Your task to perform on an android device: open app "Booking.com: Hotels and more" Image 0: 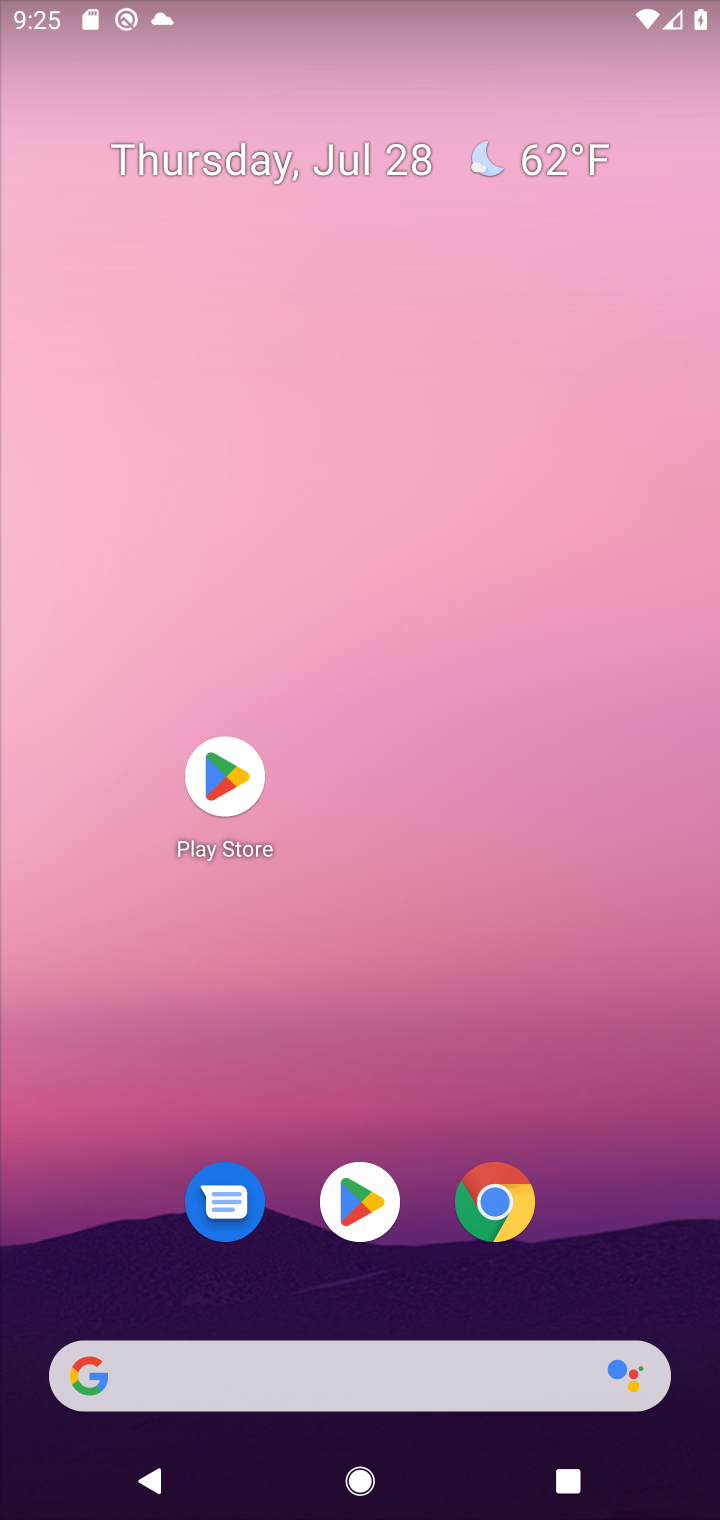
Step 0: click (216, 776)
Your task to perform on an android device: open app "Booking.com: Hotels and more" Image 1: 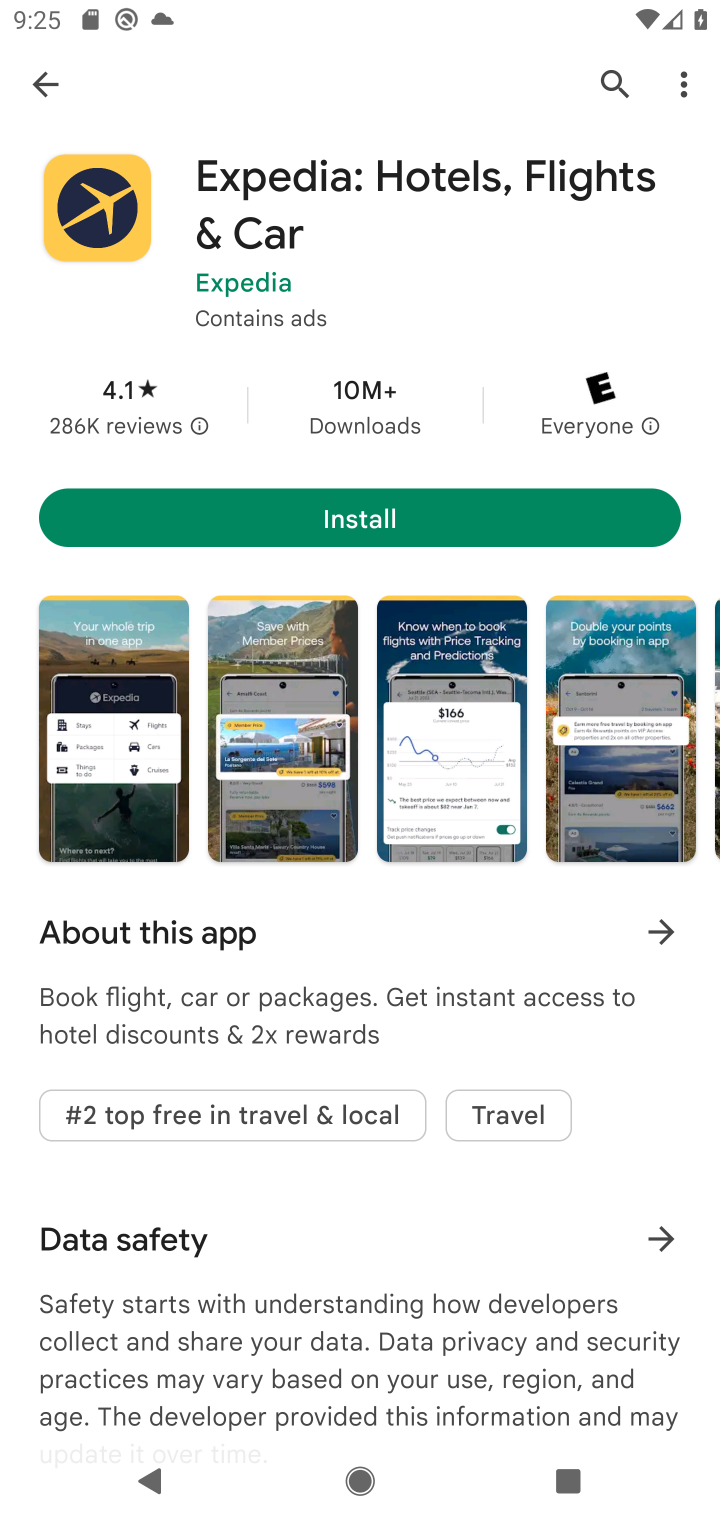
Step 1: click (49, 71)
Your task to perform on an android device: open app "Booking.com: Hotels and more" Image 2: 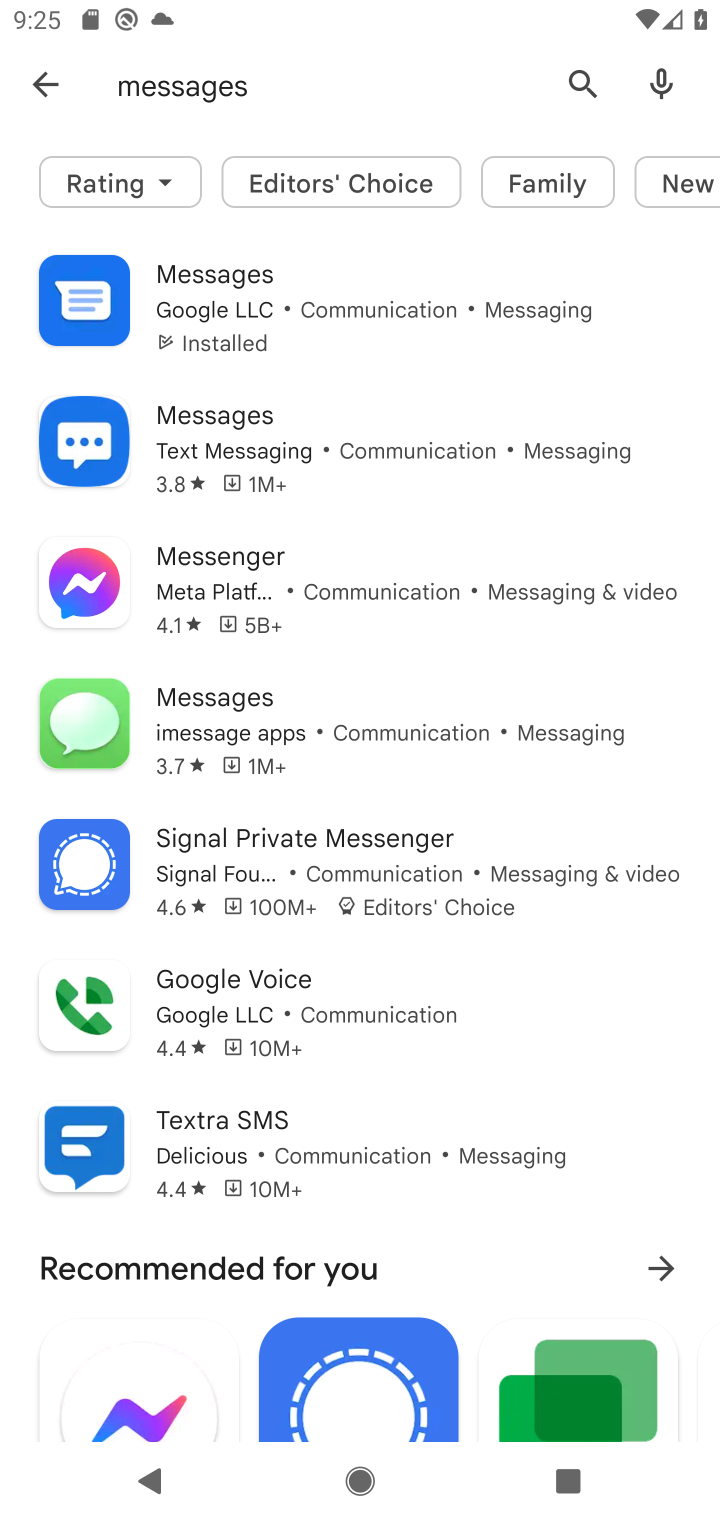
Step 2: click (55, 89)
Your task to perform on an android device: open app "Booking.com: Hotels and more" Image 3: 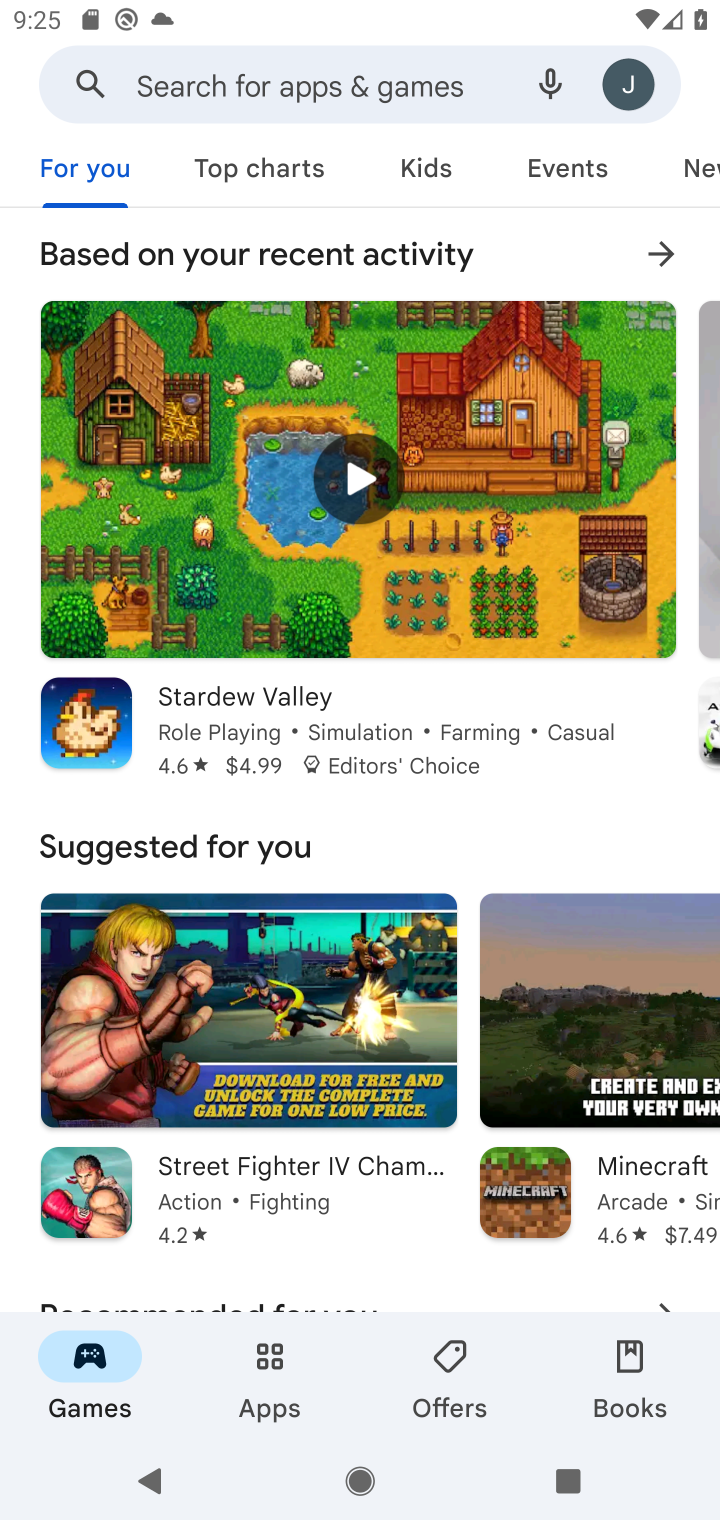
Step 3: click (171, 89)
Your task to perform on an android device: open app "Booking.com: Hotels and more" Image 4: 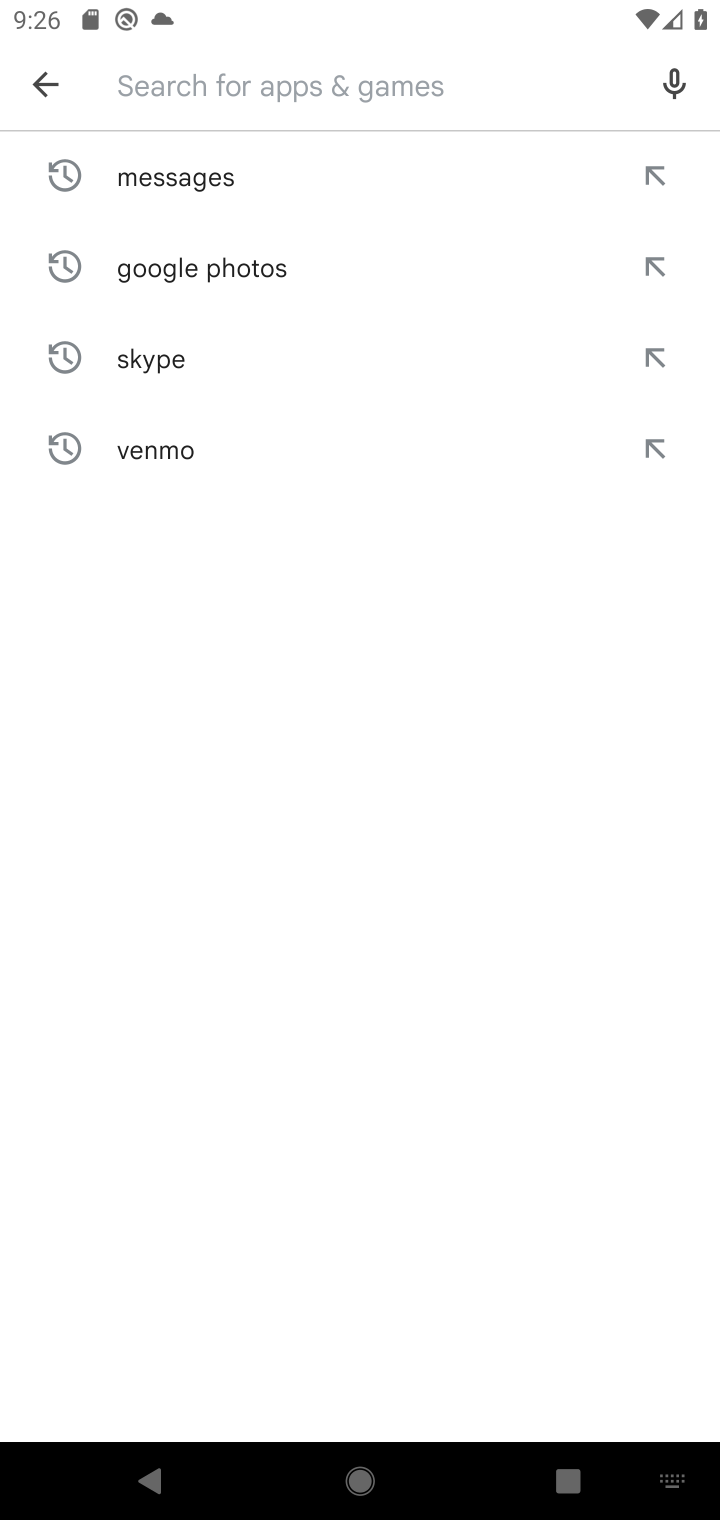
Step 4: type "booking.com"
Your task to perform on an android device: open app "Booking.com: Hotels and more" Image 5: 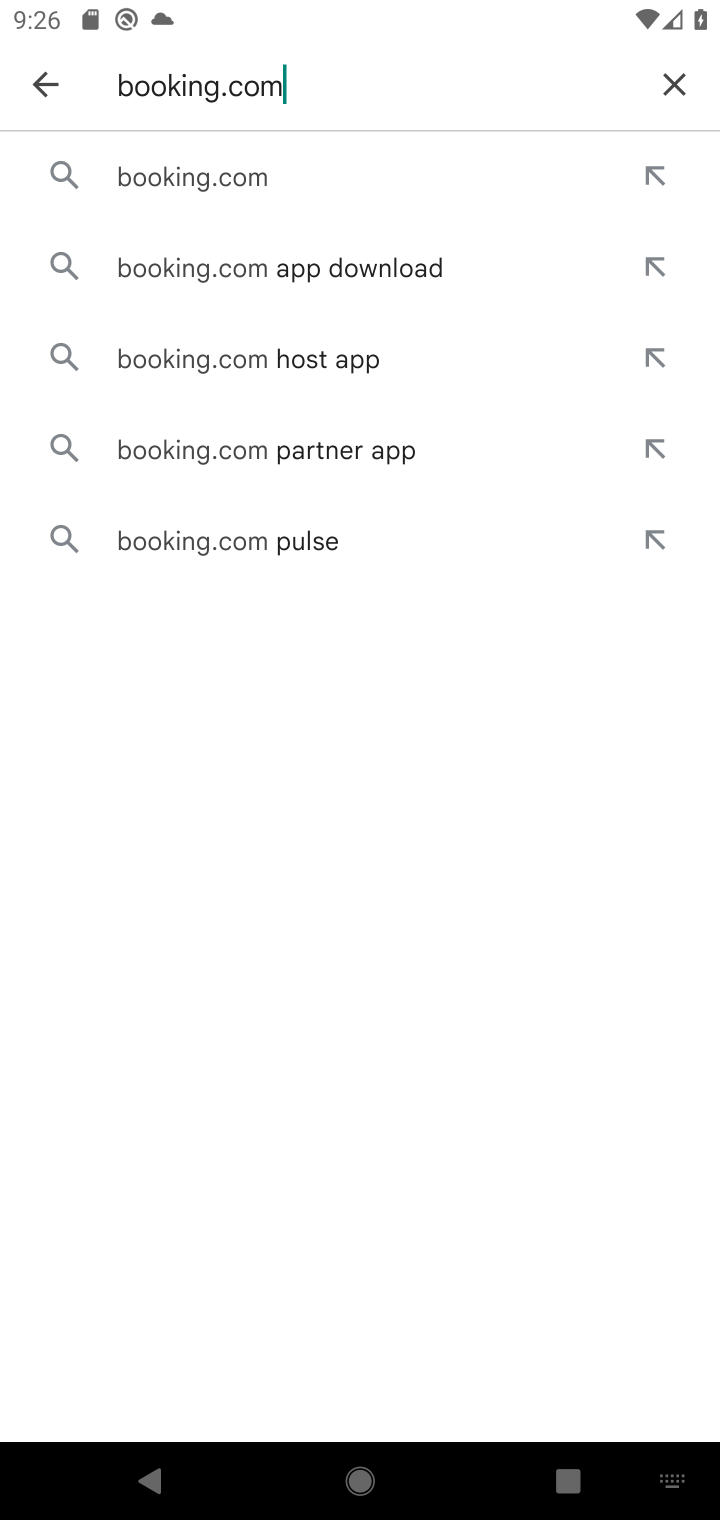
Step 5: click (170, 165)
Your task to perform on an android device: open app "Booking.com: Hotels and more" Image 6: 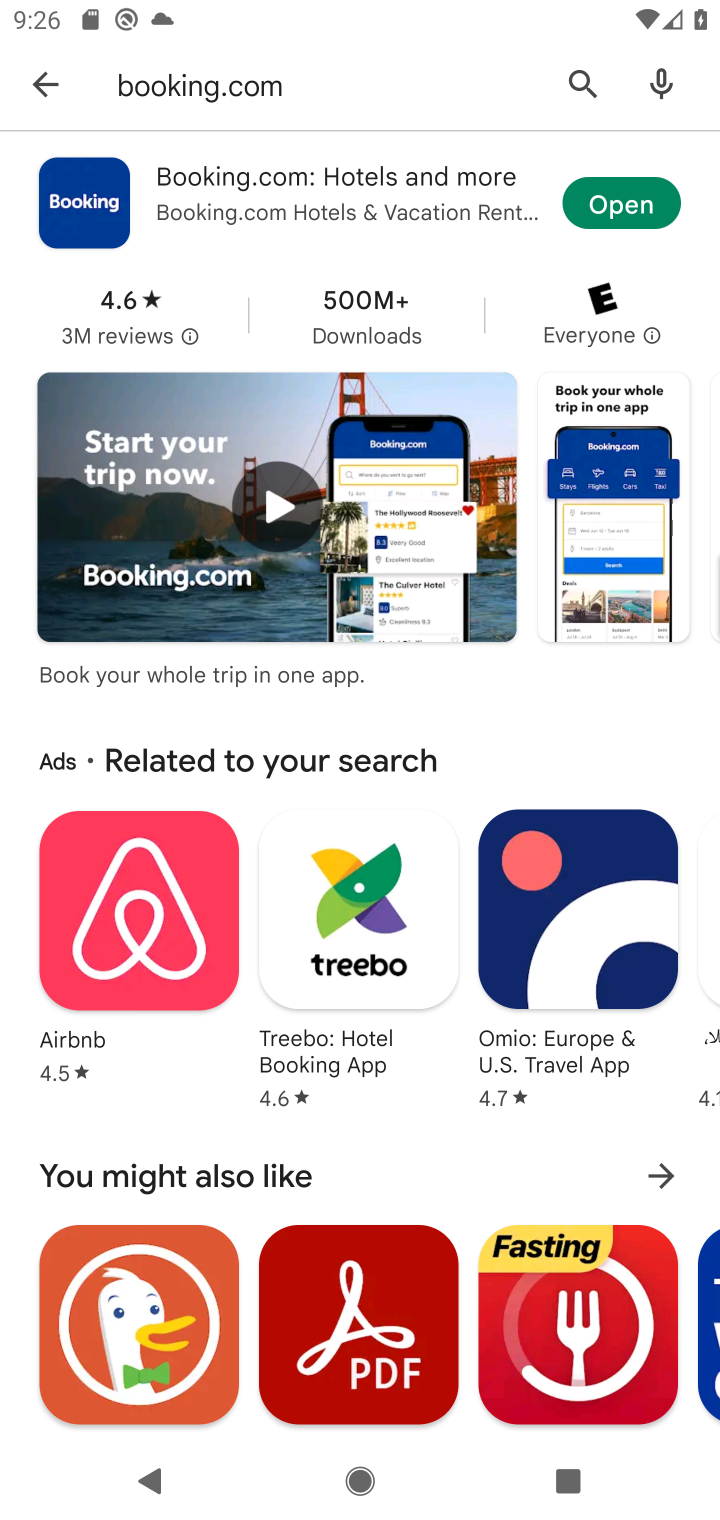
Step 6: click (595, 208)
Your task to perform on an android device: open app "Booking.com: Hotels and more" Image 7: 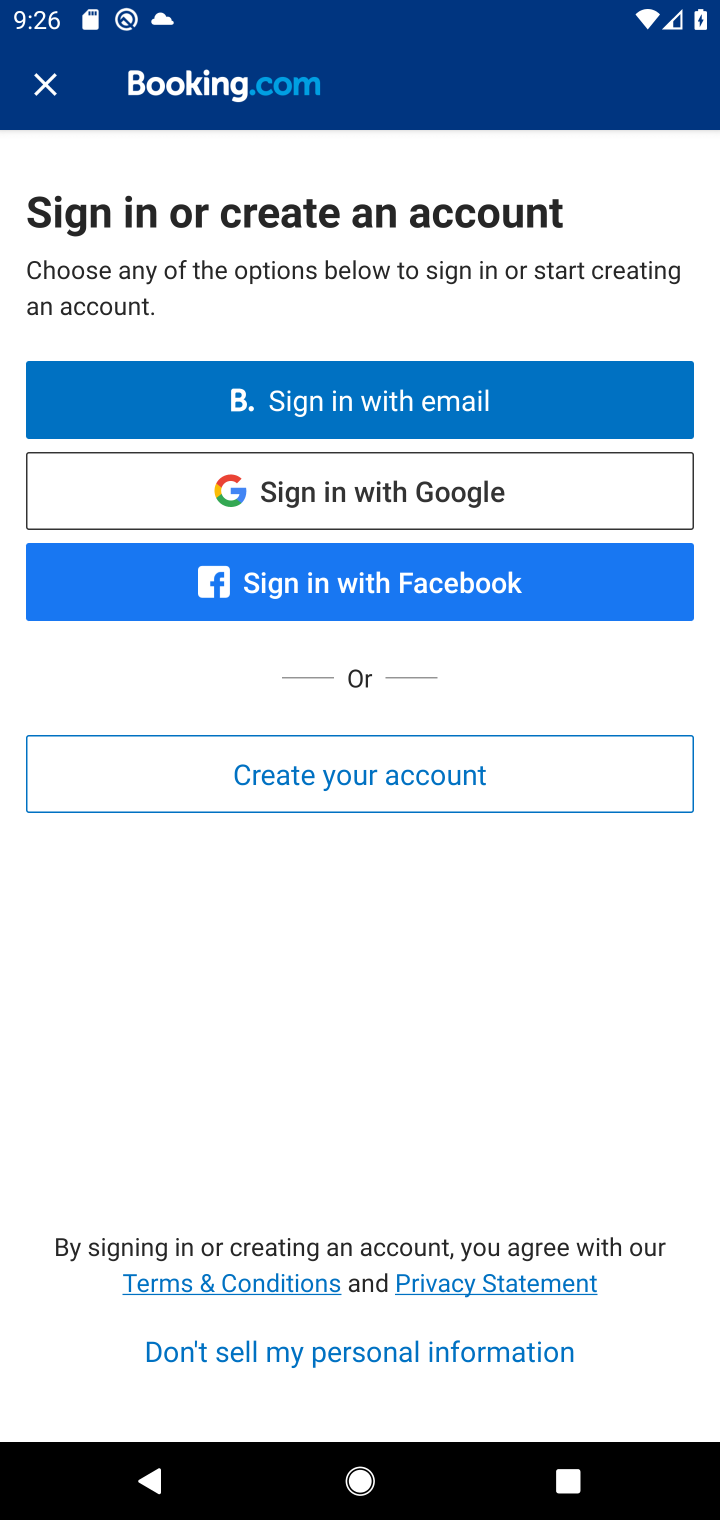
Step 7: task complete